Your task to perform on an android device: open app "Pluto TV - Live TV and Movies" Image 0: 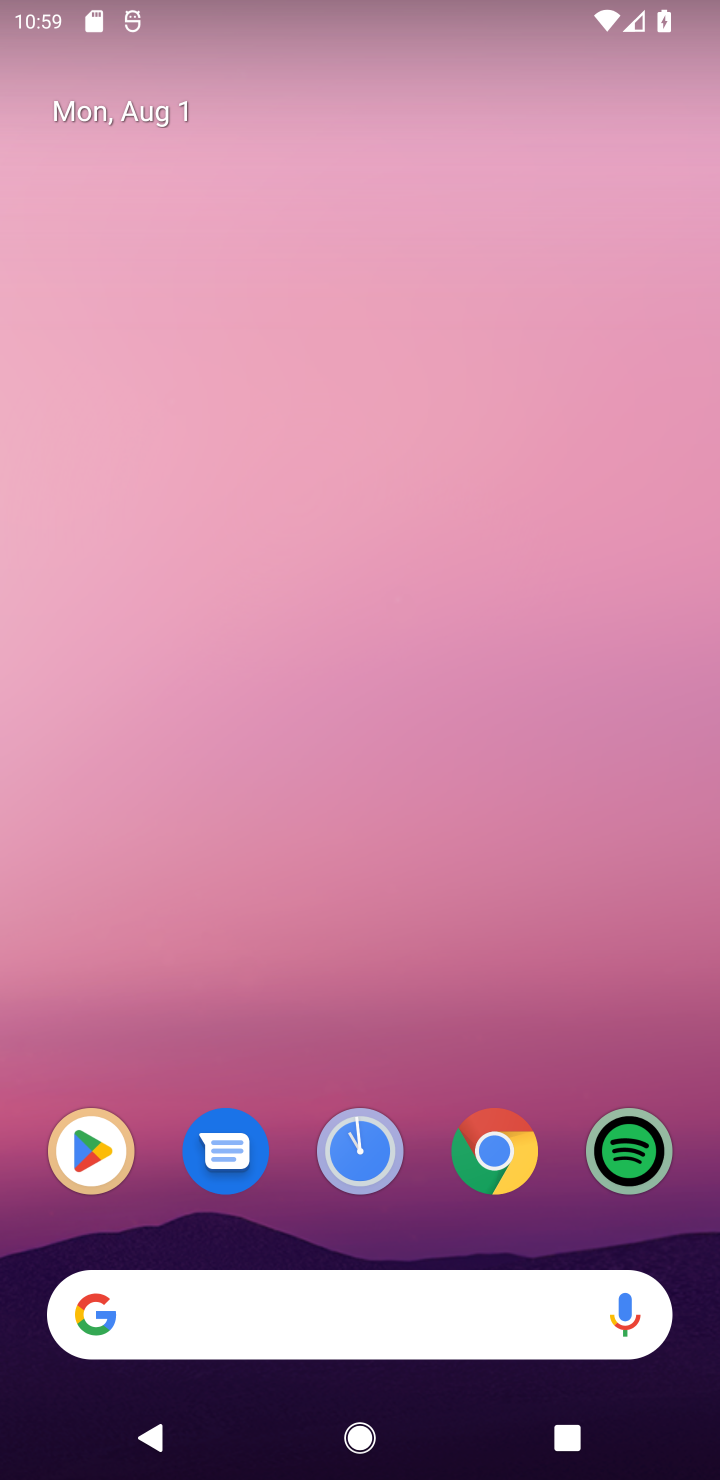
Step 0: drag from (408, 1232) to (203, 104)
Your task to perform on an android device: open app "Pluto TV - Live TV and Movies" Image 1: 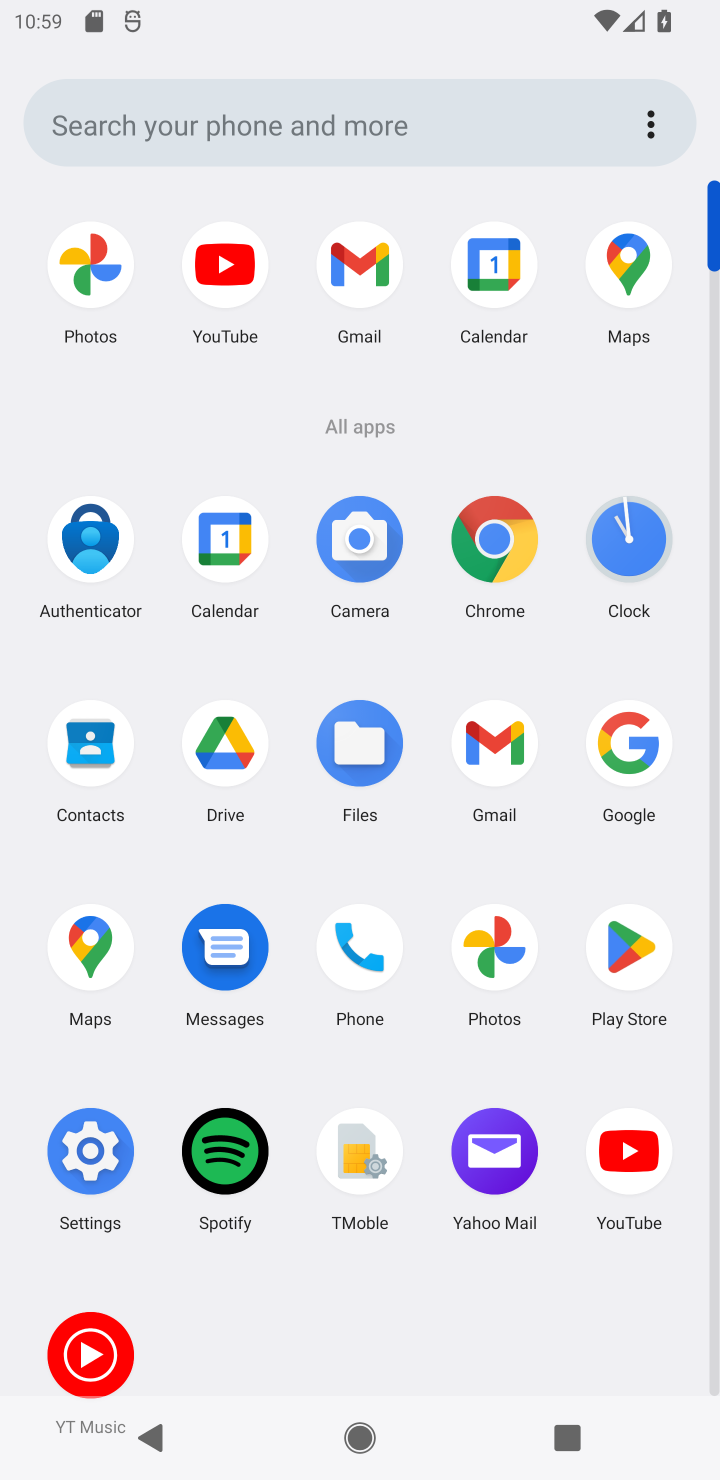
Step 1: click (634, 951)
Your task to perform on an android device: open app "Pluto TV - Live TV and Movies" Image 2: 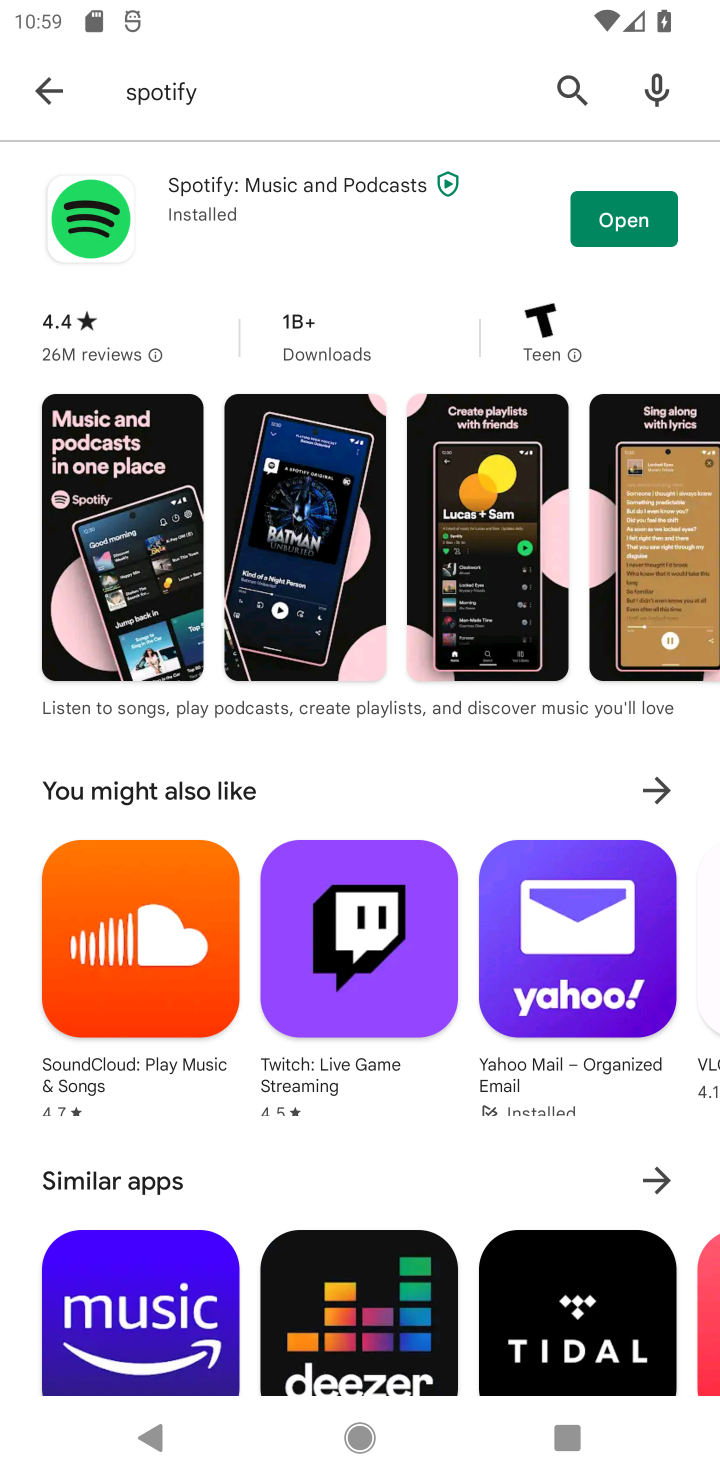
Step 2: click (14, 74)
Your task to perform on an android device: open app "Pluto TV - Live TV and Movies" Image 3: 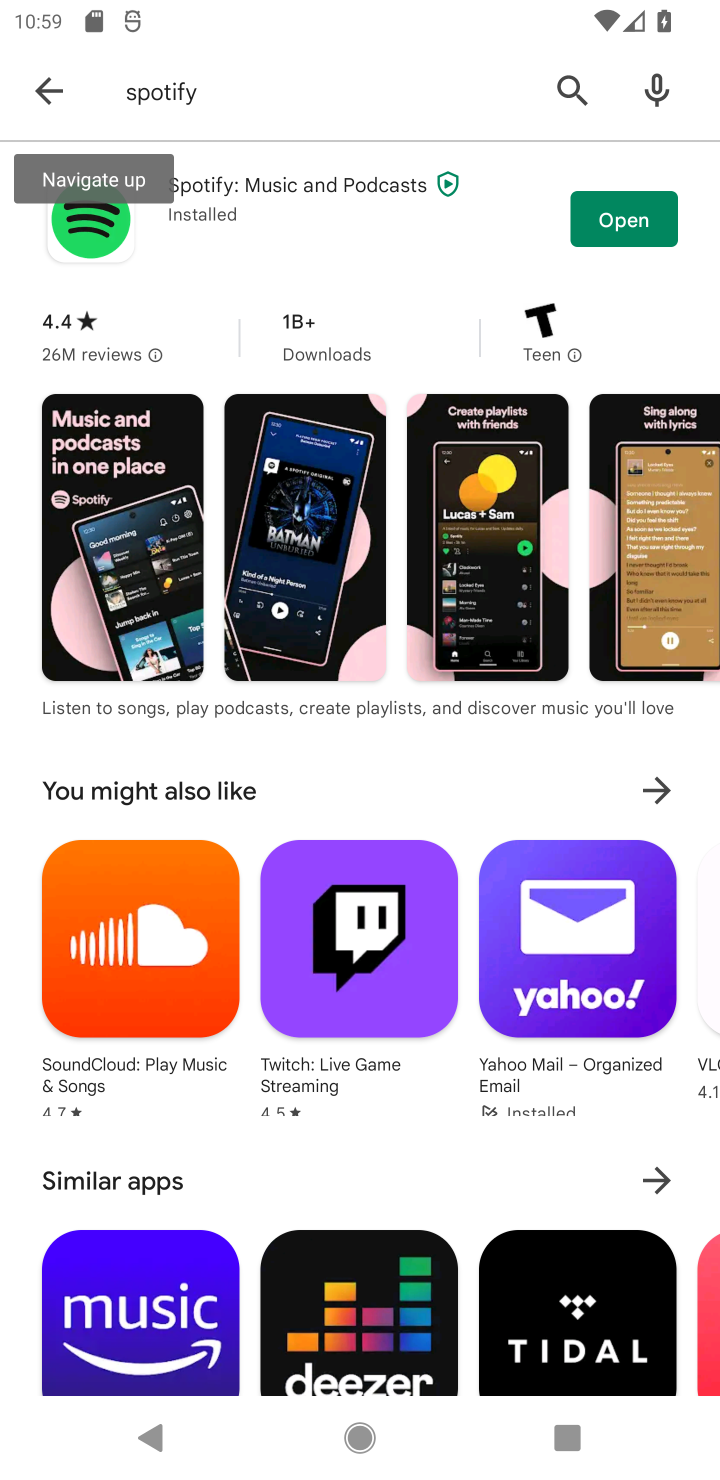
Step 3: click (42, 89)
Your task to perform on an android device: open app "Pluto TV - Live TV and Movies" Image 4: 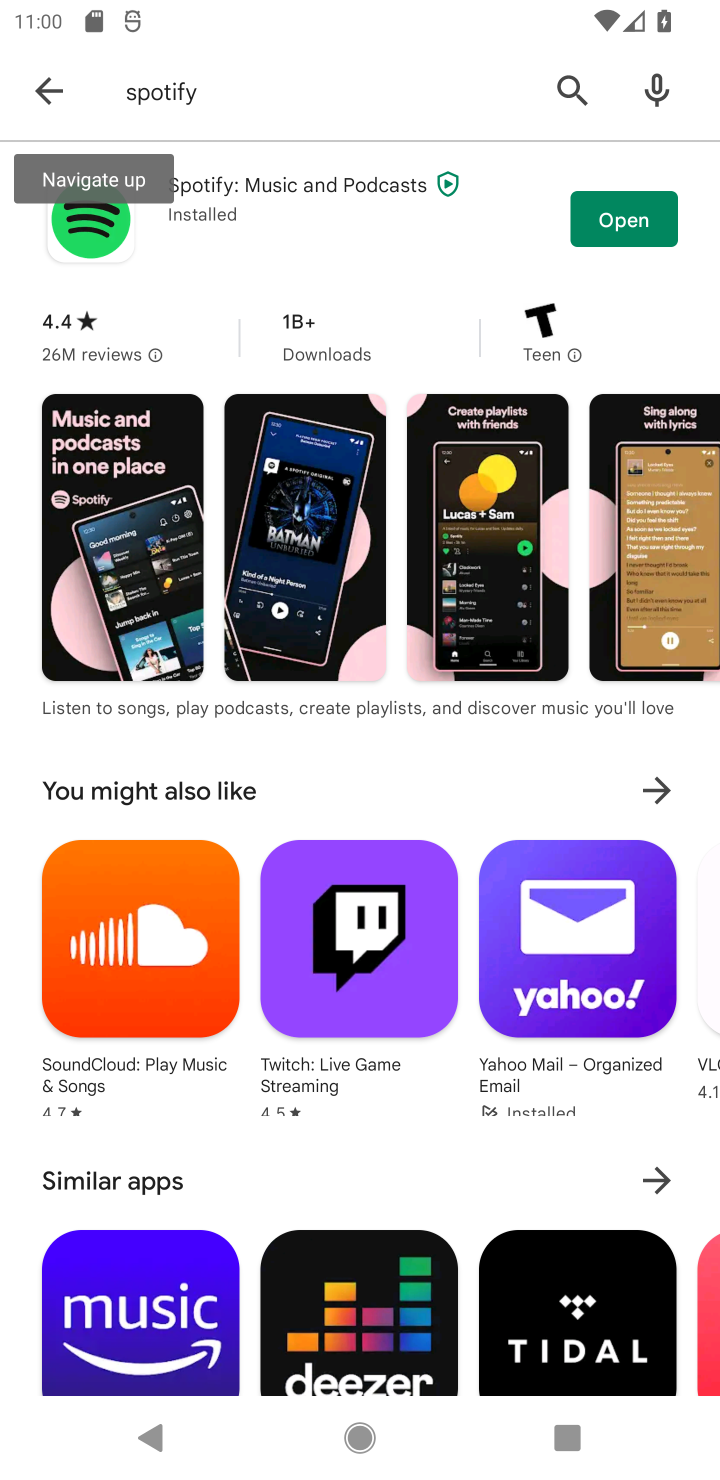
Step 4: click (42, 89)
Your task to perform on an android device: open app "Pluto TV - Live TV and Movies" Image 5: 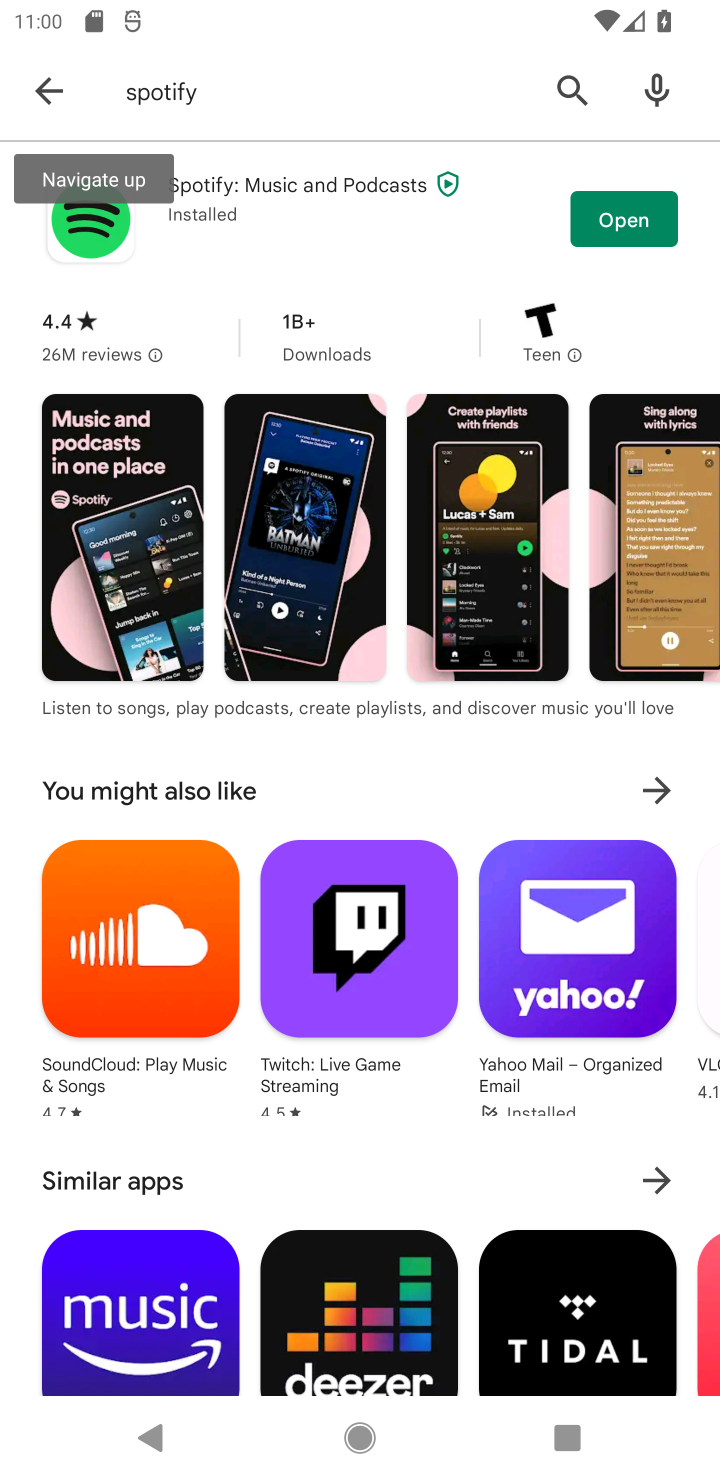
Step 5: click (42, 89)
Your task to perform on an android device: open app "Pluto TV - Live TV and Movies" Image 6: 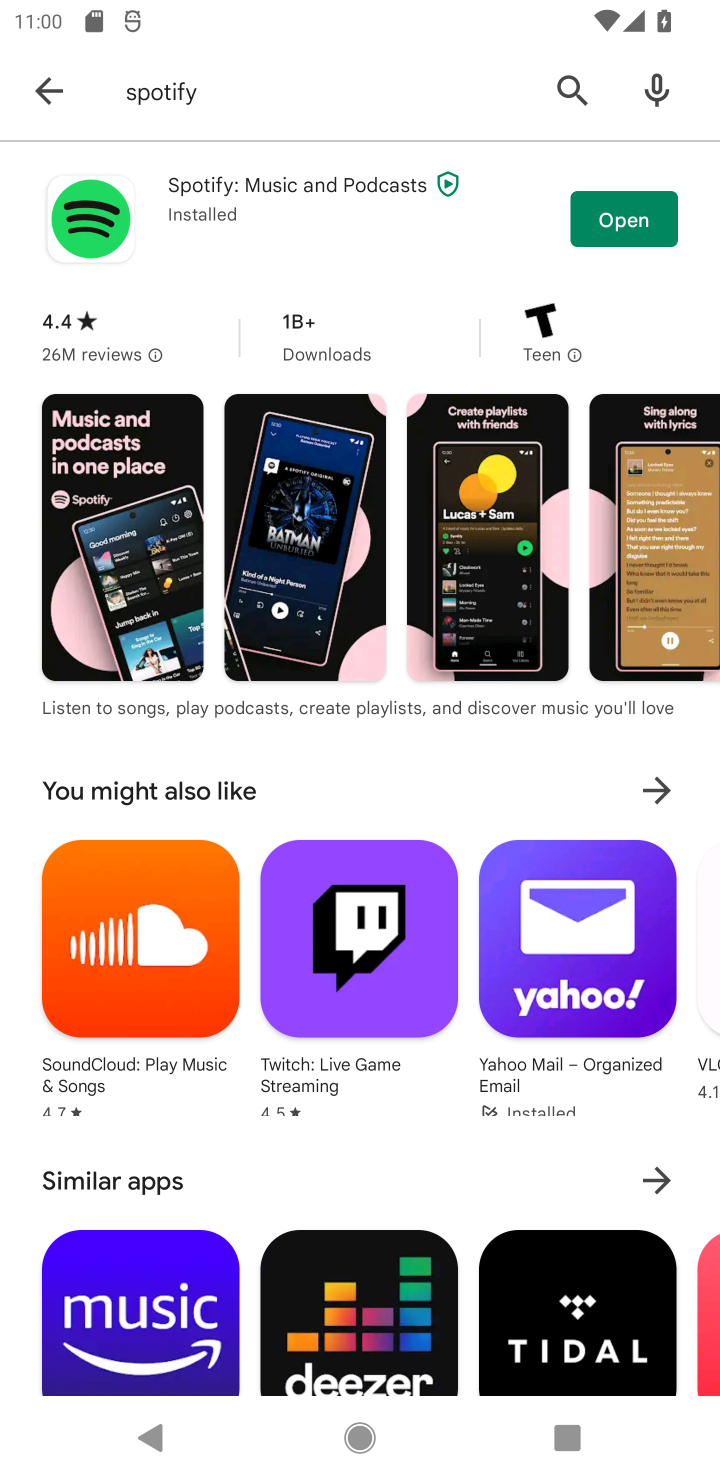
Step 6: click (49, 113)
Your task to perform on an android device: open app "Pluto TV - Live TV and Movies" Image 7: 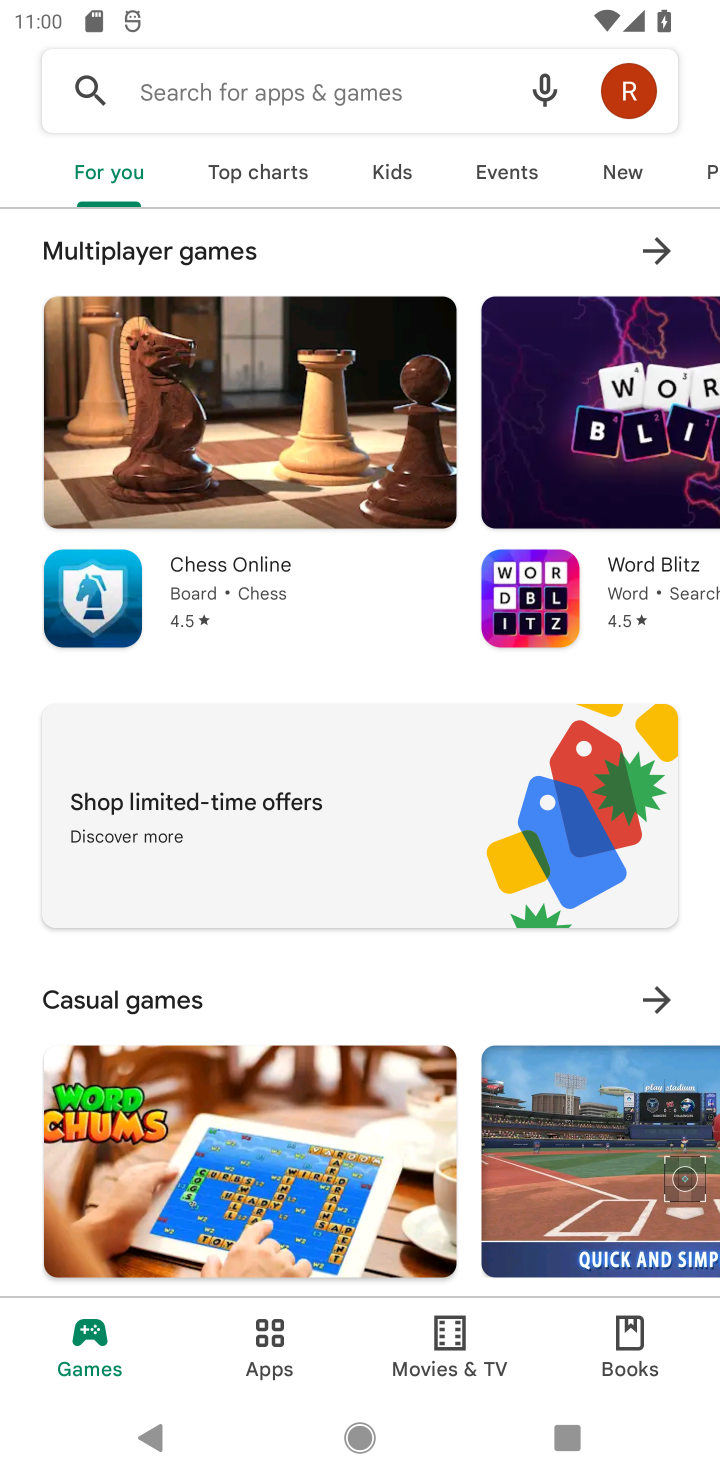
Step 7: click (221, 91)
Your task to perform on an android device: open app "Pluto TV - Live TV and Movies" Image 8: 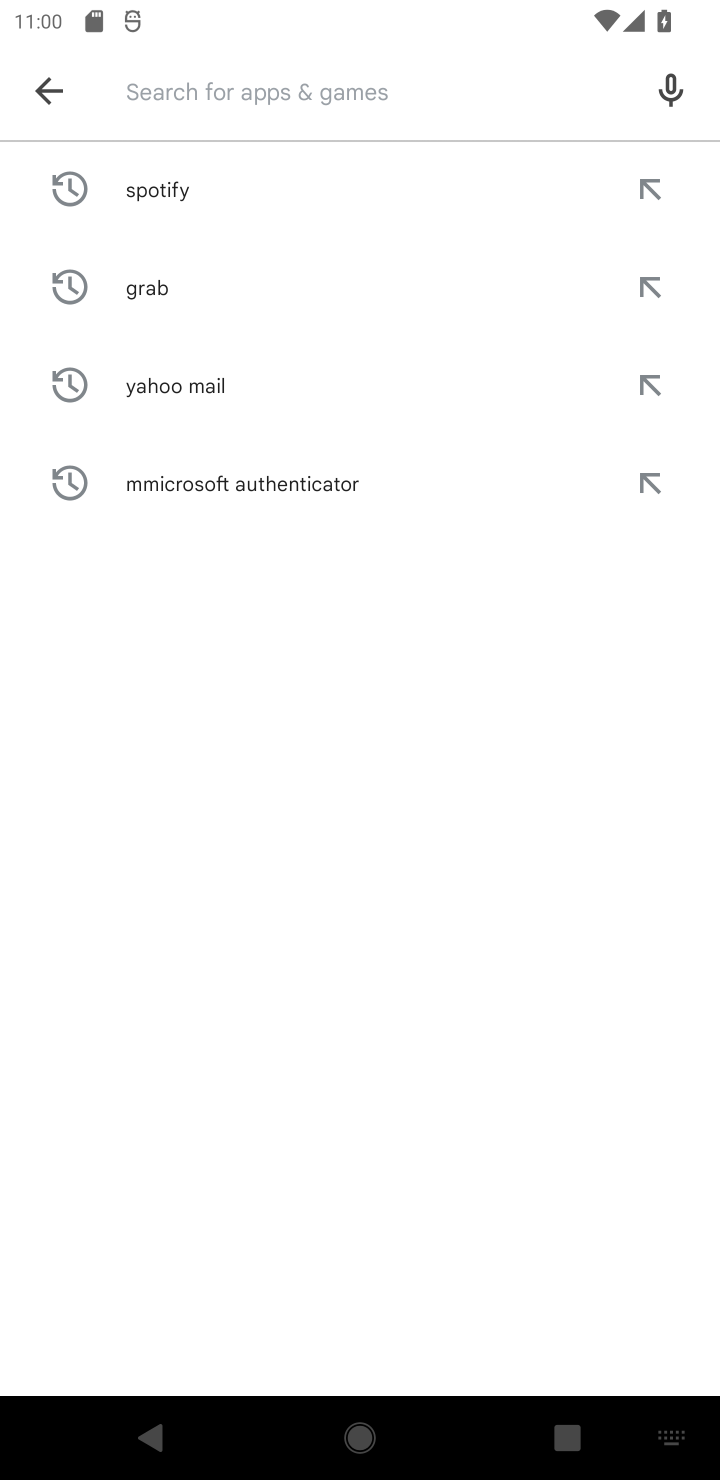
Step 8: type "Pluto TV - Live TV and Movie"
Your task to perform on an android device: open app "Pluto TV - Live TV and Movies" Image 9: 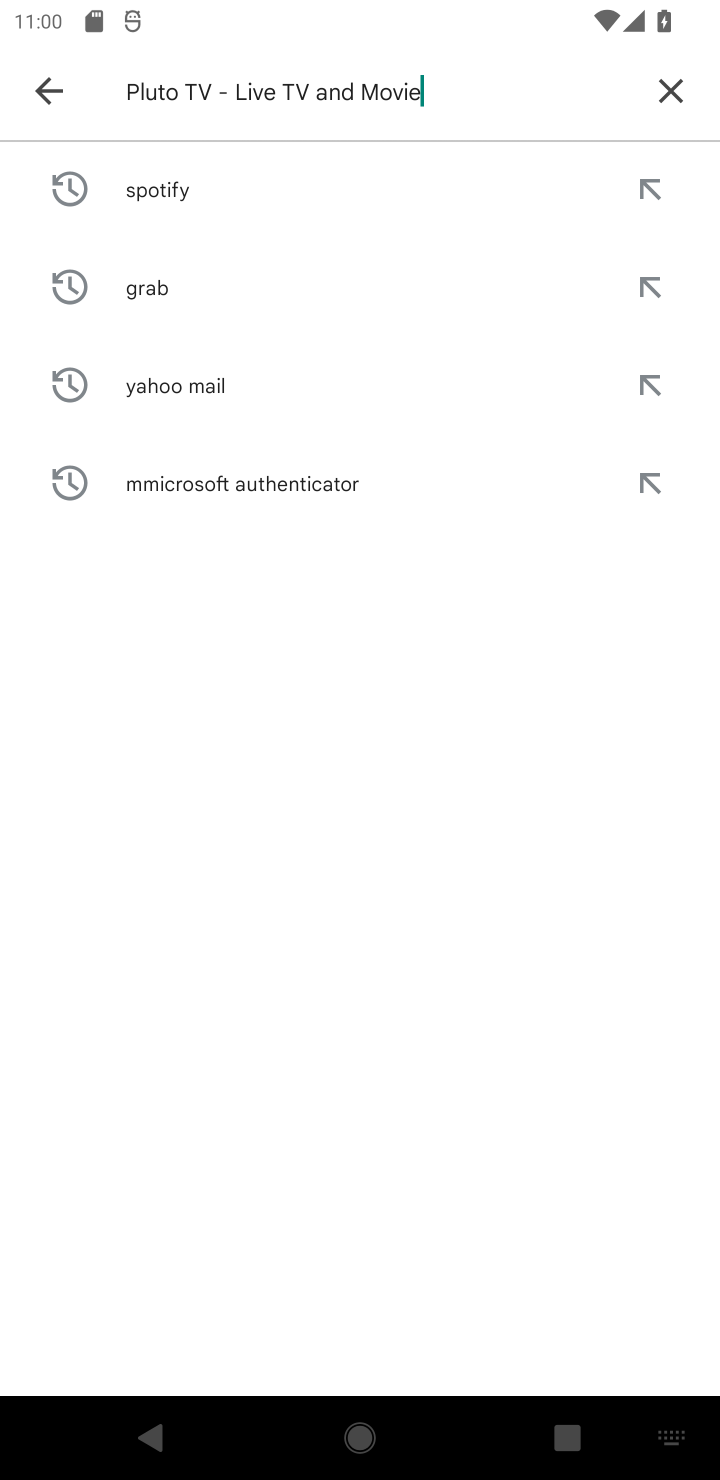
Step 9: type ""
Your task to perform on an android device: open app "Pluto TV - Live TV and Movies" Image 10: 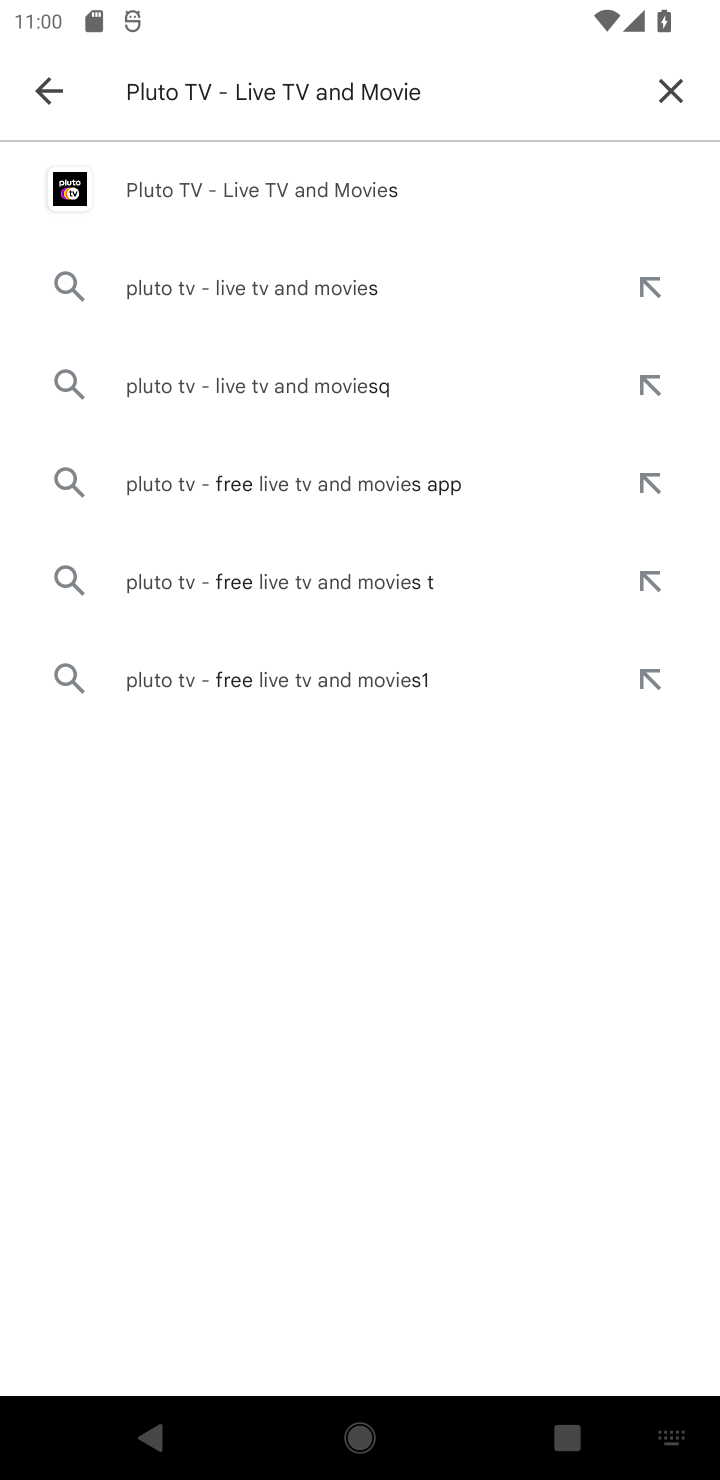
Step 10: click (171, 180)
Your task to perform on an android device: open app "Pluto TV - Live TV and Movies" Image 11: 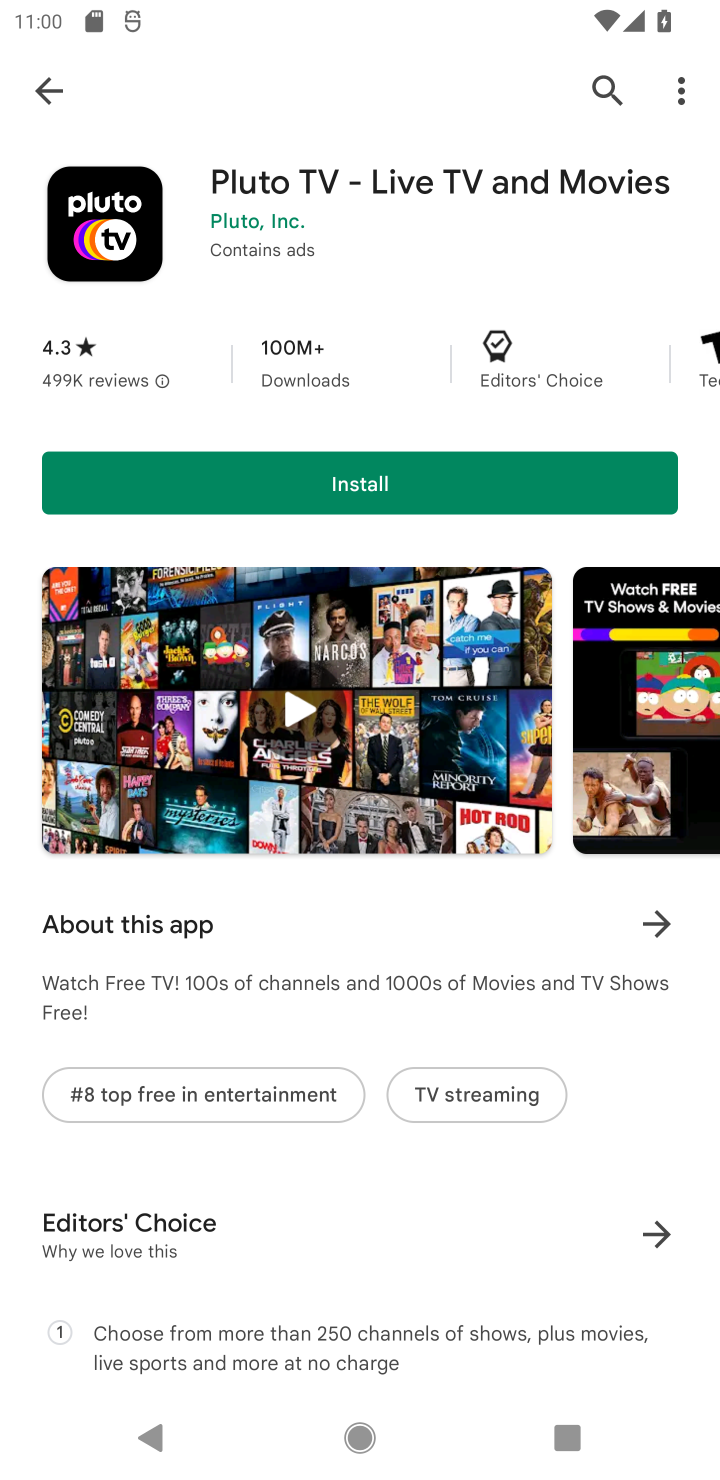
Step 11: task complete